Your task to perform on an android device: Check the news Image 0: 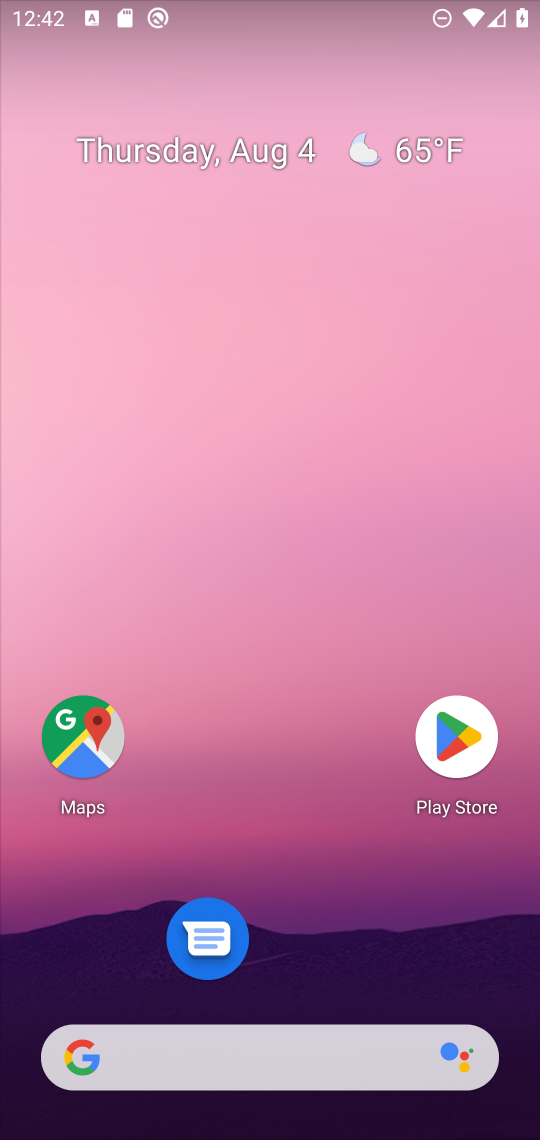
Step 0: click (180, 1054)
Your task to perform on an android device: Check the news Image 1: 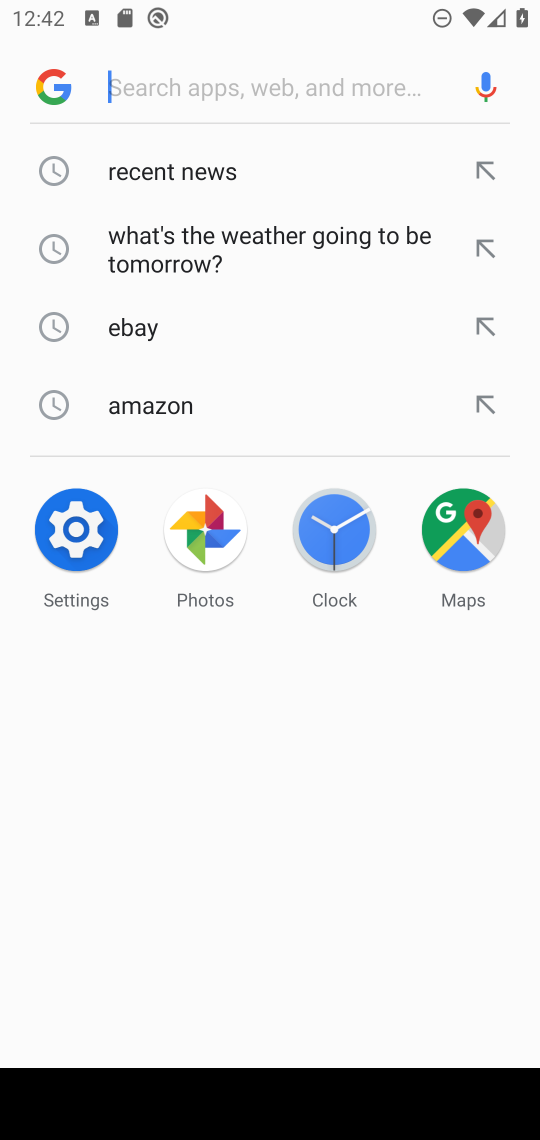
Step 1: type "check tne news"
Your task to perform on an android device: Check the news Image 2: 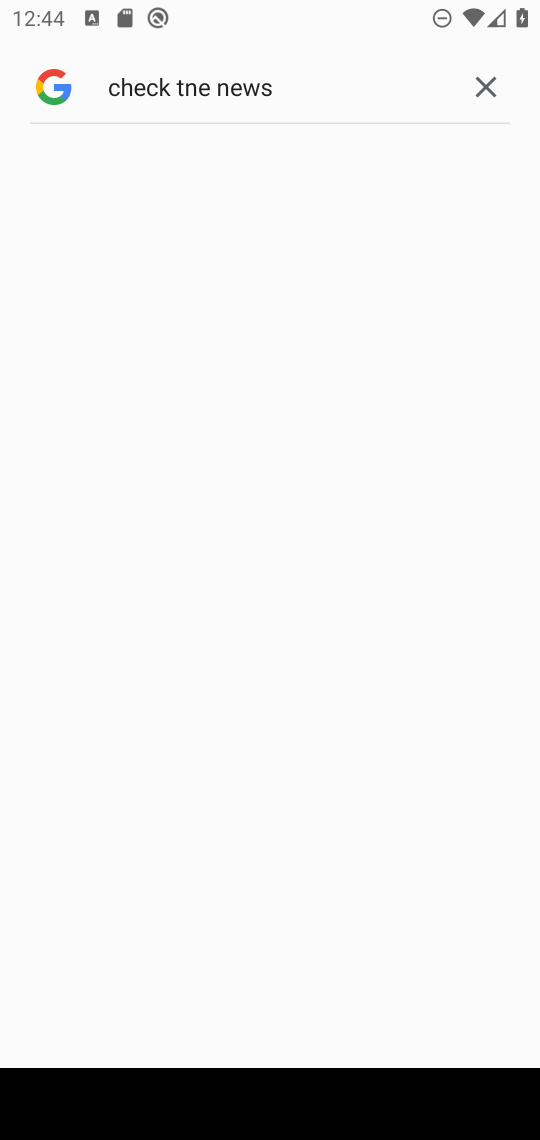
Step 2: press enter
Your task to perform on an android device: Check the news Image 3: 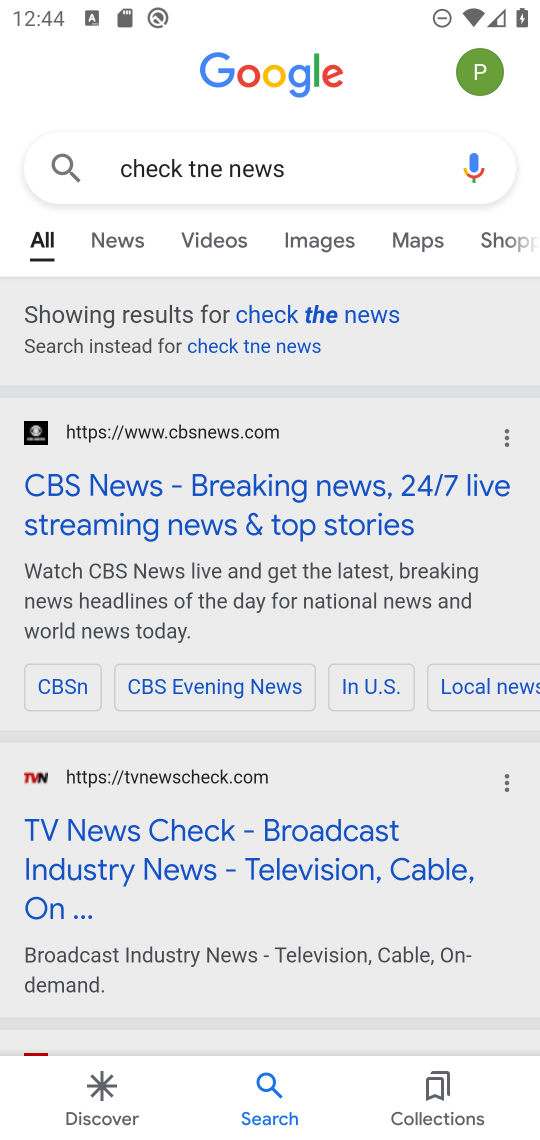
Step 3: task complete